Your task to perform on an android device: open the mobile data screen to see how much data has been used Image 0: 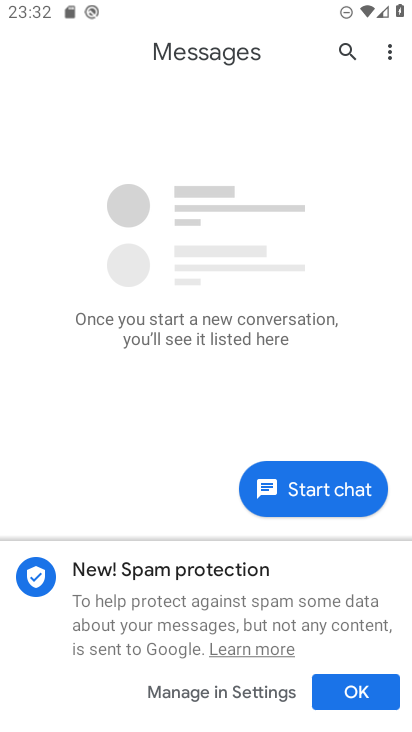
Step 0: press home button
Your task to perform on an android device: open the mobile data screen to see how much data has been used Image 1: 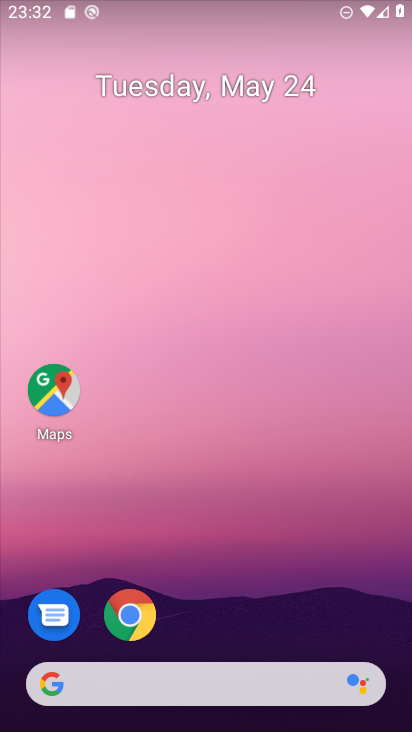
Step 1: drag from (170, 691) to (251, 74)
Your task to perform on an android device: open the mobile data screen to see how much data has been used Image 2: 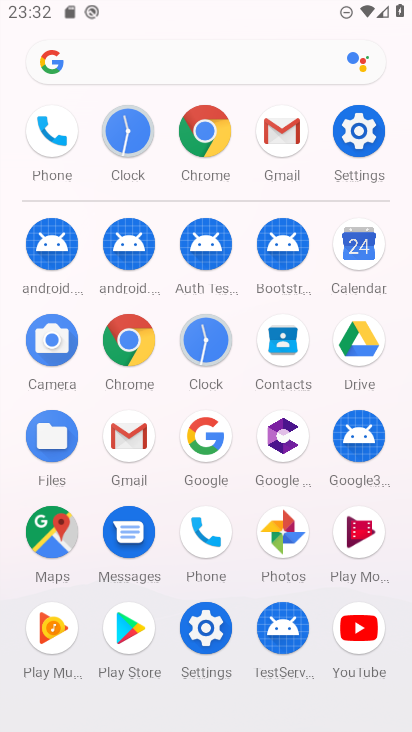
Step 2: click (351, 151)
Your task to perform on an android device: open the mobile data screen to see how much data has been used Image 3: 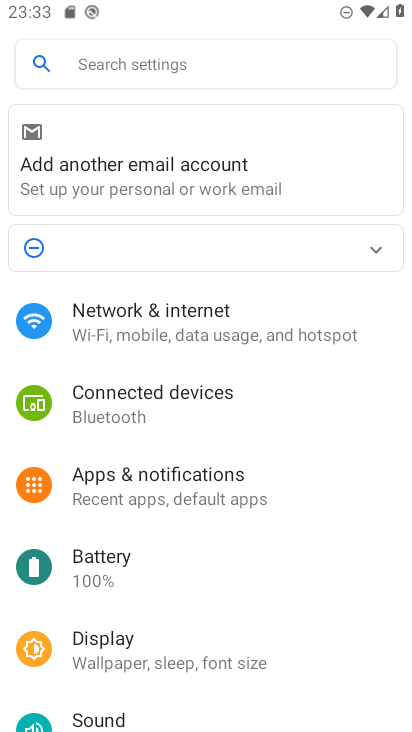
Step 3: click (140, 71)
Your task to perform on an android device: open the mobile data screen to see how much data has been used Image 4: 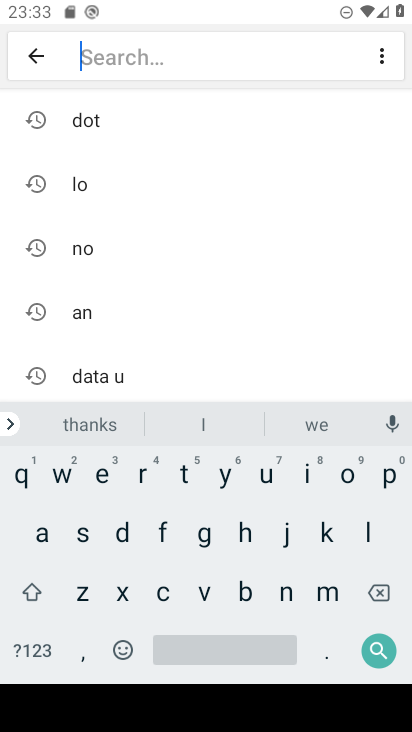
Step 4: click (120, 536)
Your task to perform on an android device: open the mobile data screen to see how much data has been used Image 5: 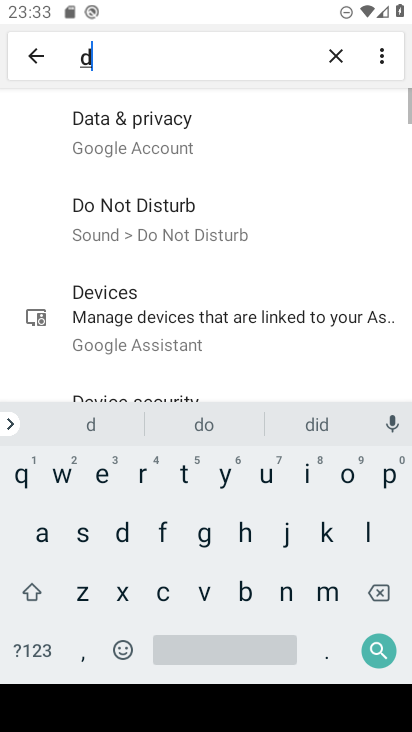
Step 5: click (28, 551)
Your task to perform on an android device: open the mobile data screen to see how much data has been used Image 6: 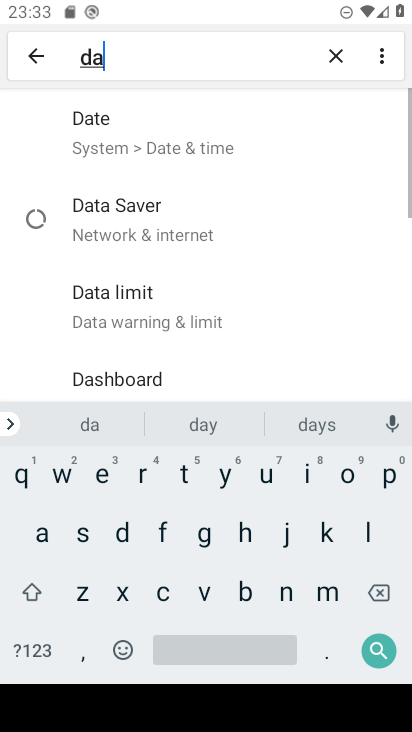
Step 6: click (180, 478)
Your task to perform on an android device: open the mobile data screen to see how much data has been used Image 7: 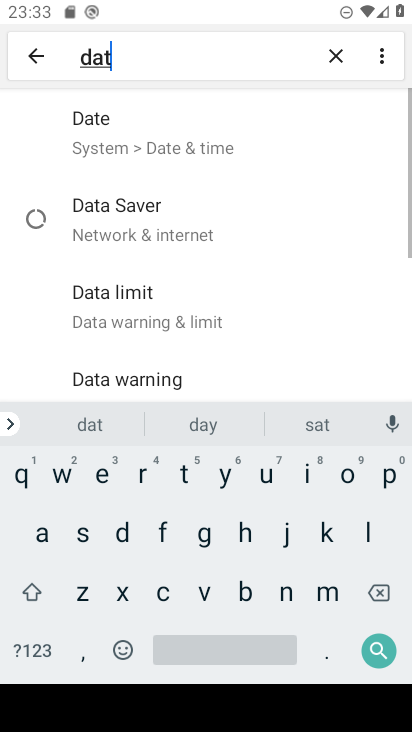
Step 7: click (43, 534)
Your task to perform on an android device: open the mobile data screen to see how much data has been used Image 8: 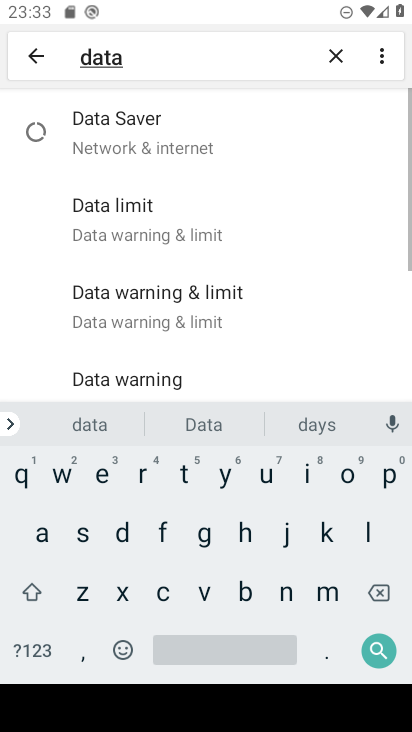
Step 8: click (217, 650)
Your task to perform on an android device: open the mobile data screen to see how much data has been used Image 9: 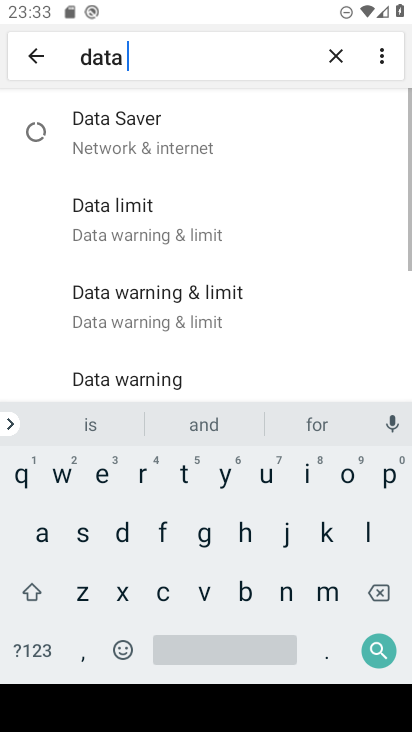
Step 9: click (263, 474)
Your task to perform on an android device: open the mobile data screen to see how much data has been used Image 10: 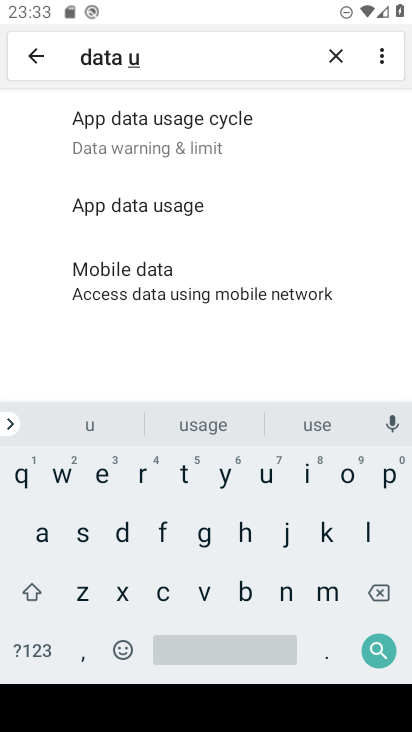
Step 10: click (183, 201)
Your task to perform on an android device: open the mobile data screen to see how much data has been used Image 11: 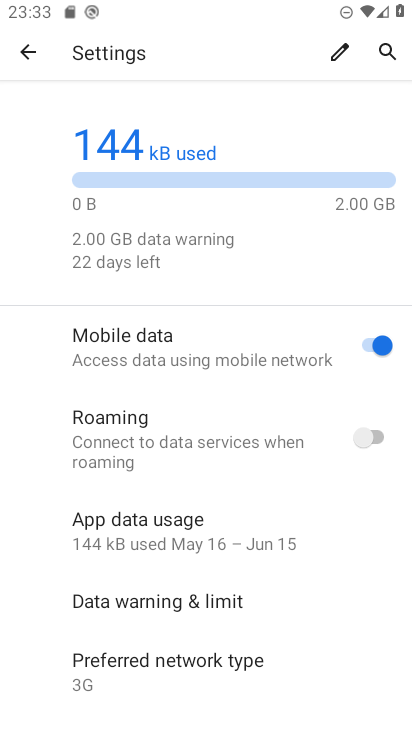
Step 11: task complete